Your task to perform on an android device: choose inbox layout in the gmail app Image 0: 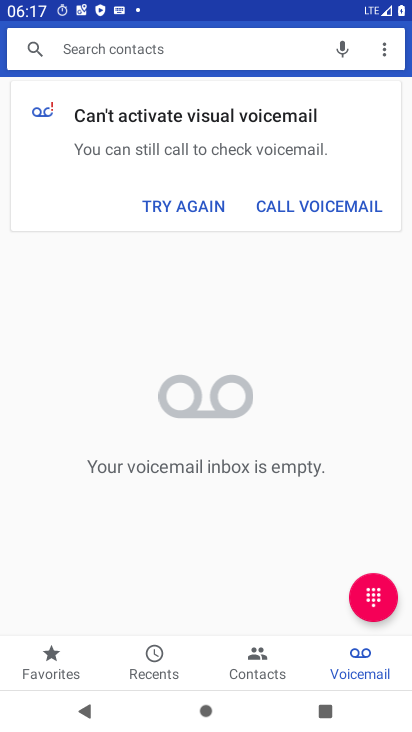
Step 0: press home button
Your task to perform on an android device: choose inbox layout in the gmail app Image 1: 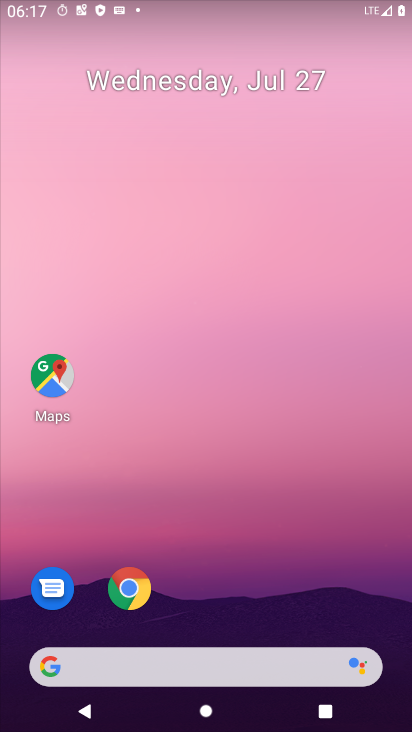
Step 1: drag from (292, 525) to (302, 53)
Your task to perform on an android device: choose inbox layout in the gmail app Image 2: 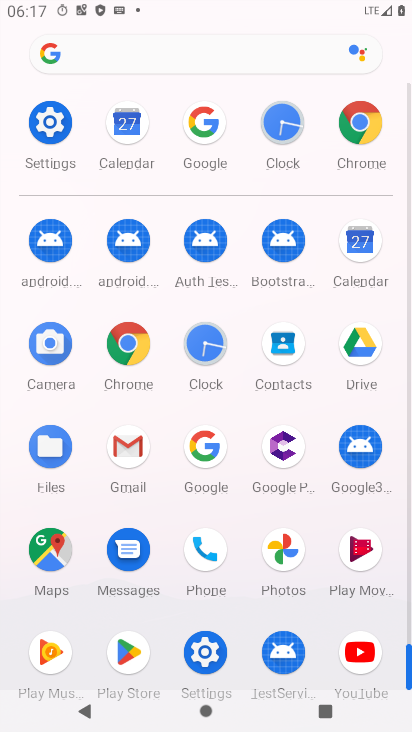
Step 2: click (125, 450)
Your task to perform on an android device: choose inbox layout in the gmail app Image 3: 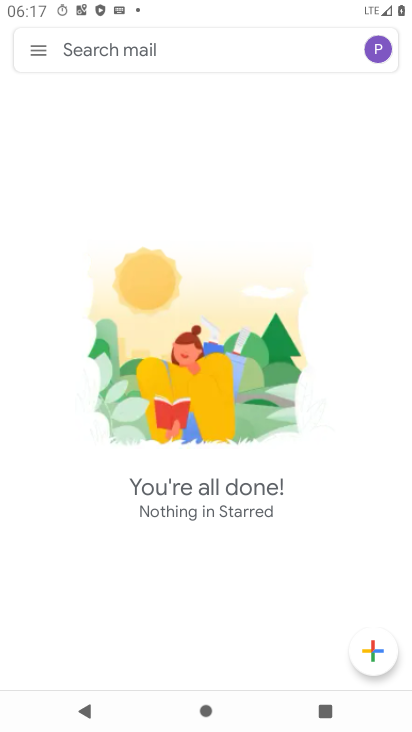
Step 3: click (49, 49)
Your task to perform on an android device: choose inbox layout in the gmail app Image 4: 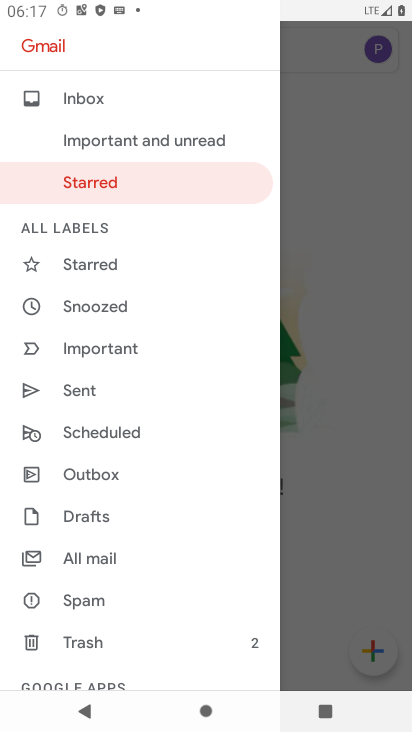
Step 4: drag from (104, 623) to (112, 268)
Your task to perform on an android device: choose inbox layout in the gmail app Image 5: 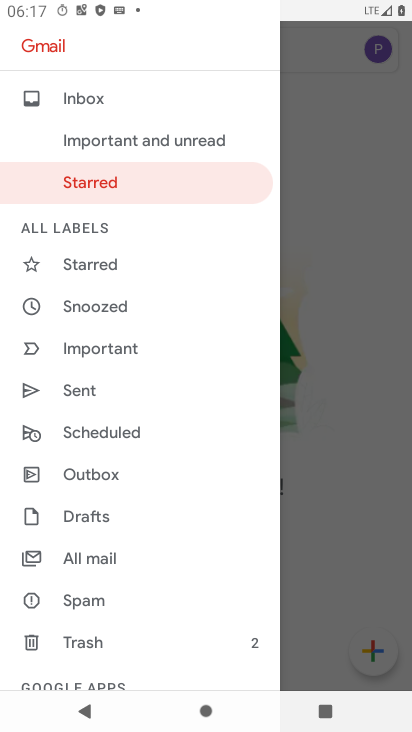
Step 5: drag from (122, 606) to (137, 289)
Your task to perform on an android device: choose inbox layout in the gmail app Image 6: 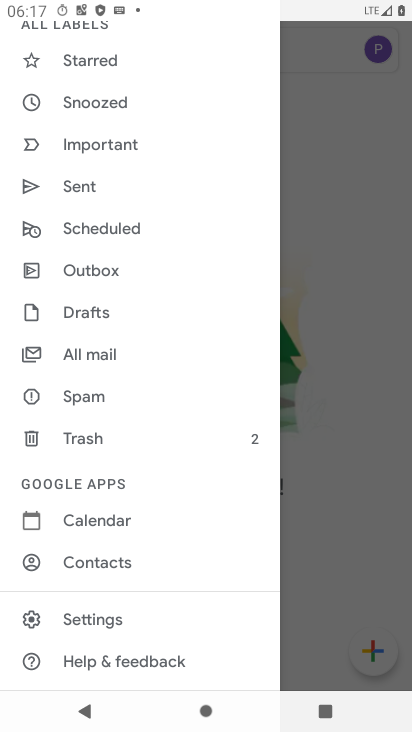
Step 6: click (86, 612)
Your task to perform on an android device: choose inbox layout in the gmail app Image 7: 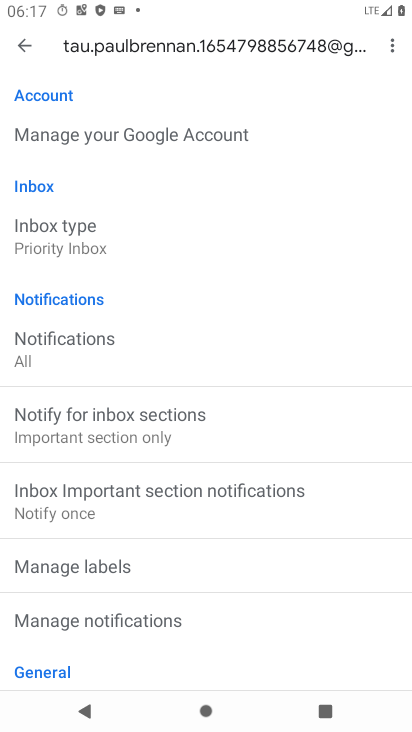
Step 7: click (123, 249)
Your task to perform on an android device: choose inbox layout in the gmail app Image 8: 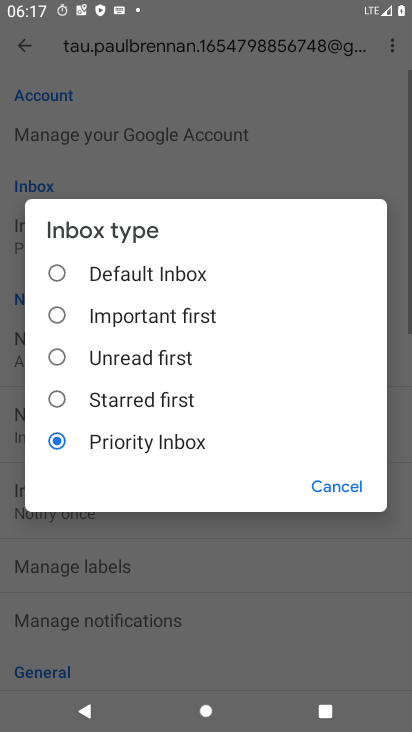
Step 8: click (83, 270)
Your task to perform on an android device: choose inbox layout in the gmail app Image 9: 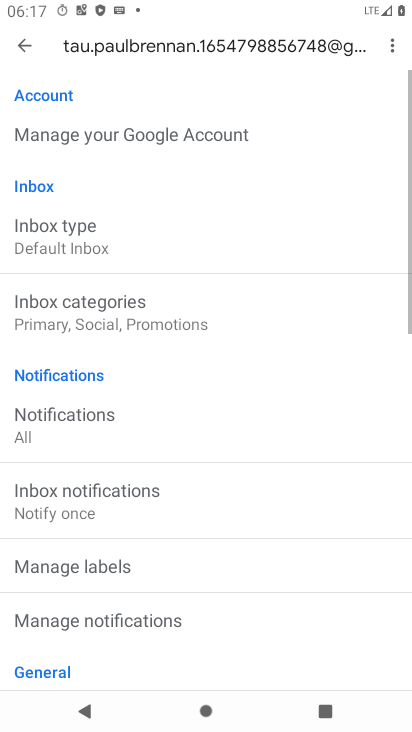
Step 9: task complete